Your task to perform on an android device: Go to Maps Image 0: 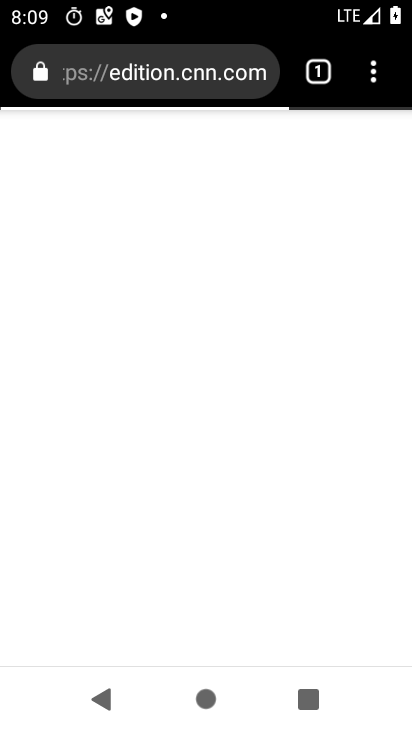
Step 0: press home button
Your task to perform on an android device: Go to Maps Image 1: 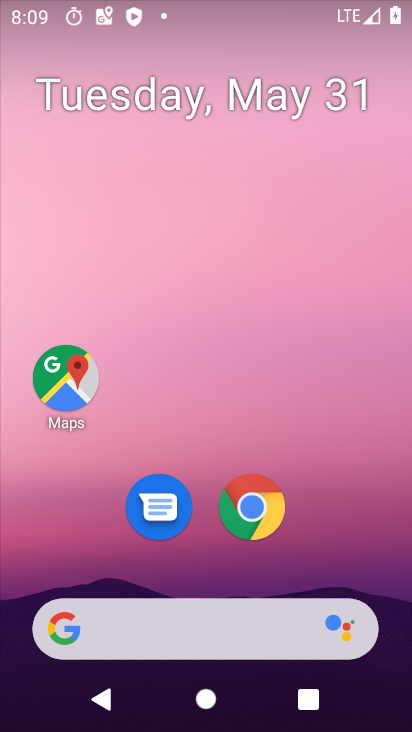
Step 1: click (52, 384)
Your task to perform on an android device: Go to Maps Image 2: 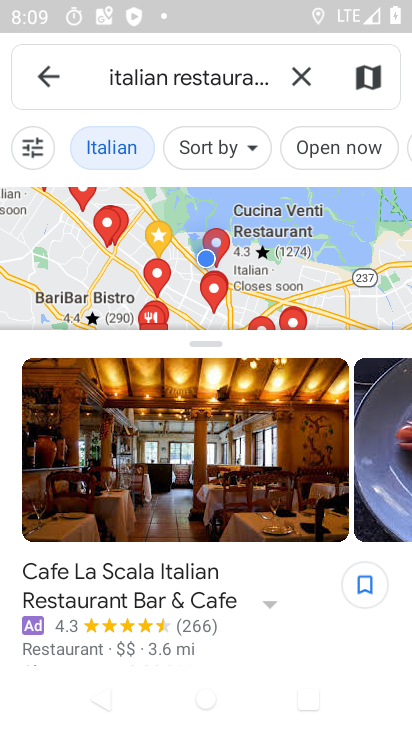
Step 2: click (294, 80)
Your task to perform on an android device: Go to Maps Image 3: 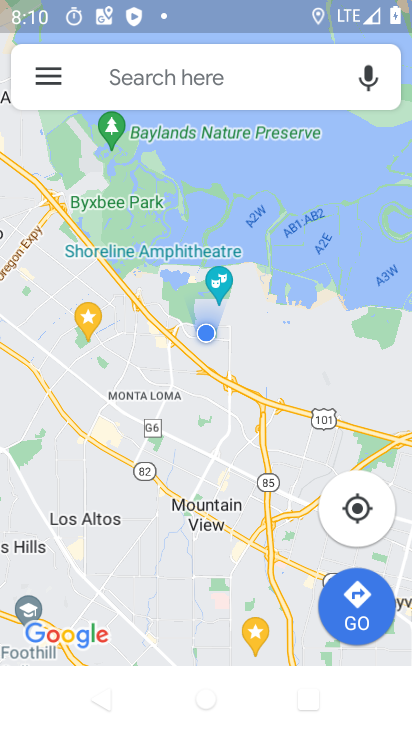
Step 3: task complete